Your task to perform on an android device: set default search engine in the chrome app Image 0: 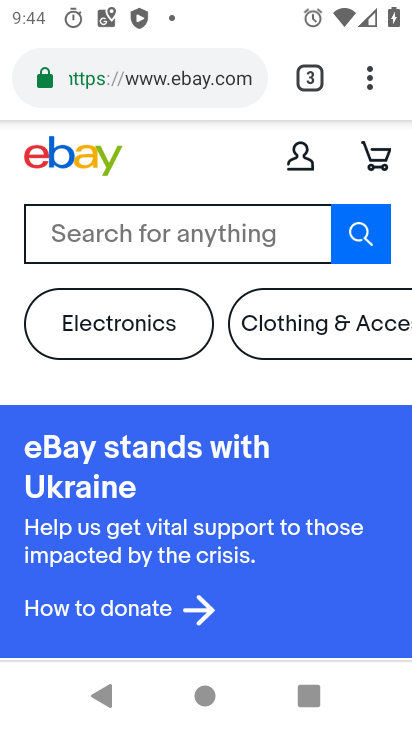
Step 0: press home button
Your task to perform on an android device: set default search engine in the chrome app Image 1: 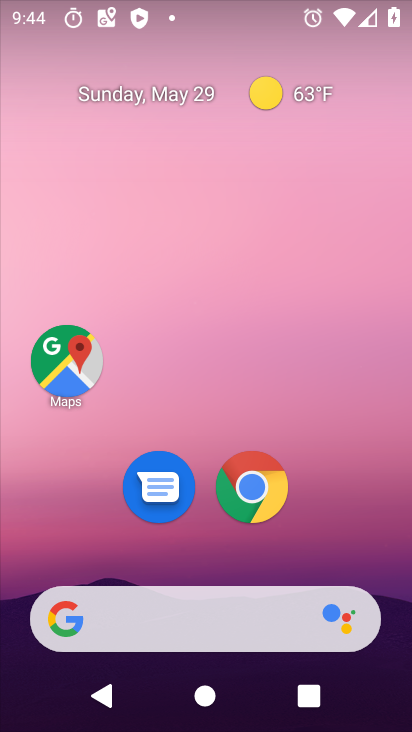
Step 1: drag from (230, 594) to (258, 72)
Your task to perform on an android device: set default search engine in the chrome app Image 2: 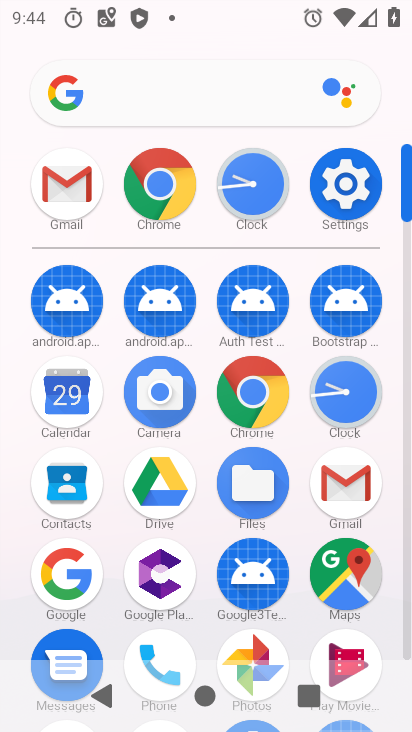
Step 2: click (257, 404)
Your task to perform on an android device: set default search engine in the chrome app Image 3: 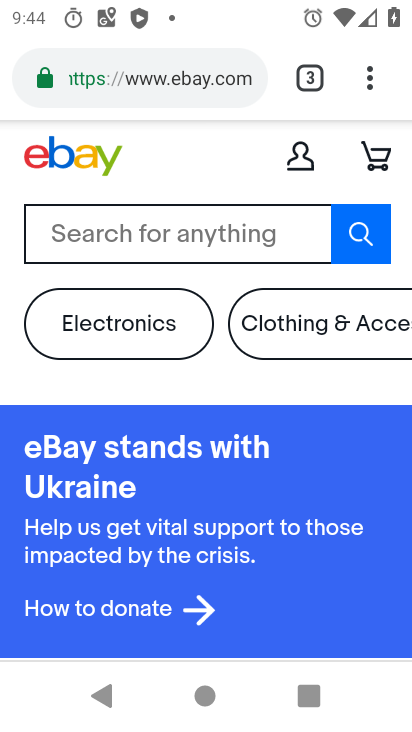
Step 3: click (369, 75)
Your task to perform on an android device: set default search engine in the chrome app Image 4: 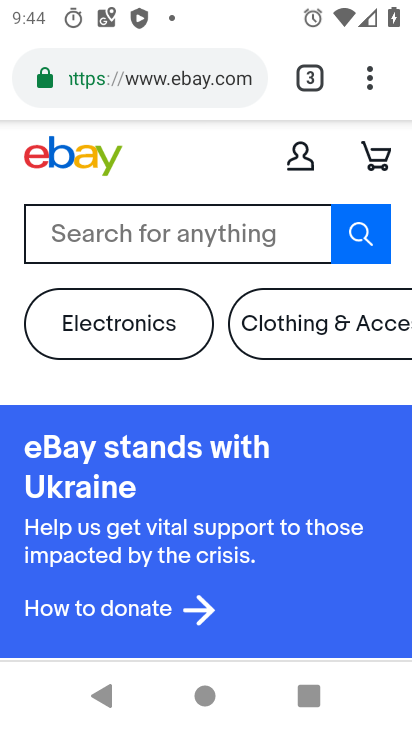
Step 4: click (375, 88)
Your task to perform on an android device: set default search engine in the chrome app Image 5: 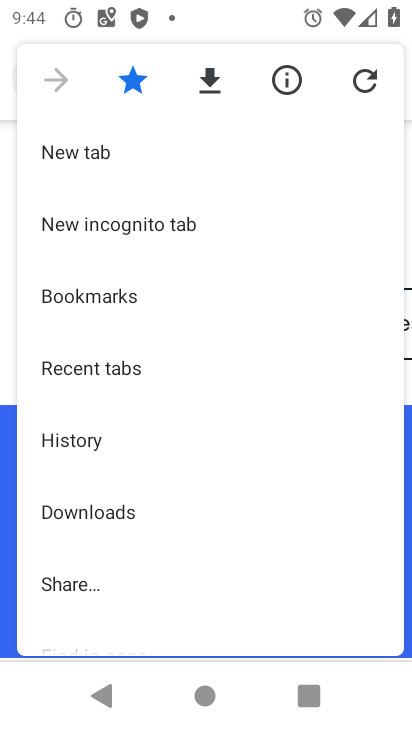
Step 5: drag from (166, 494) to (233, 171)
Your task to perform on an android device: set default search engine in the chrome app Image 6: 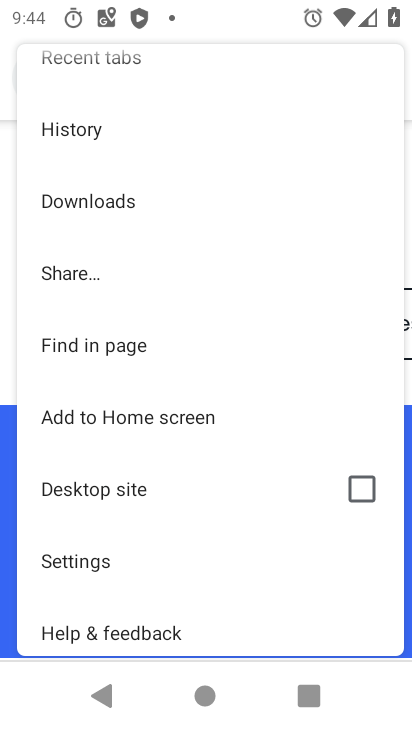
Step 6: click (137, 555)
Your task to perform on an android device: set default search engine in the chrome app Image 7: 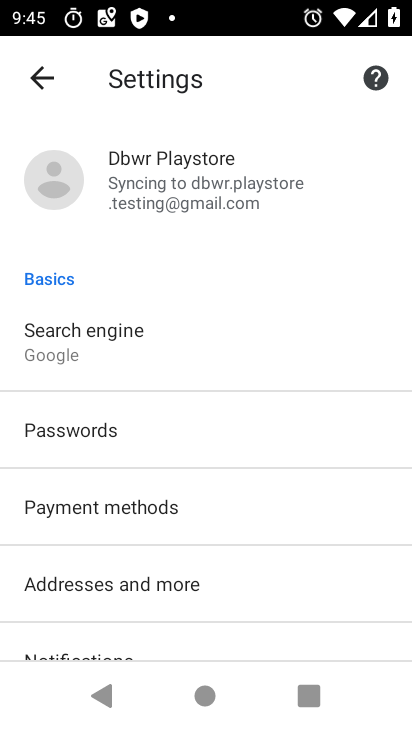
Step 7: click (90, 351)
Your task to perform on an android device: set default search engine in the chrome app Image 8: 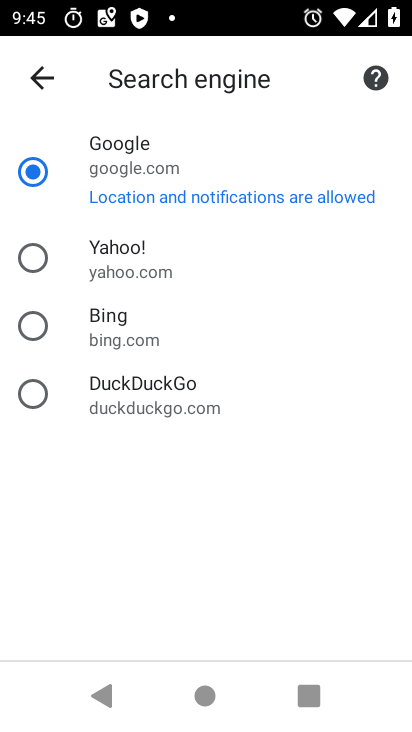
Step 8: task complete